Your task to perform on an android device: turn off smart reply in the gmail app Image 0: 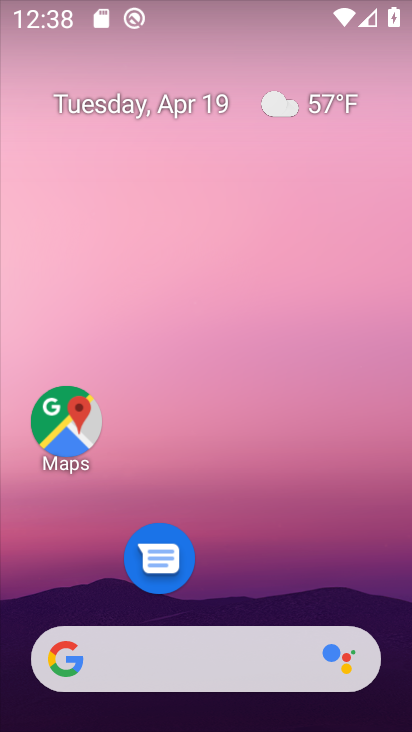
Step 0: drag from (227, 557) to (167, 91)
Your task to perform on an android device: turn off smart reply in the gmail app Image 1: 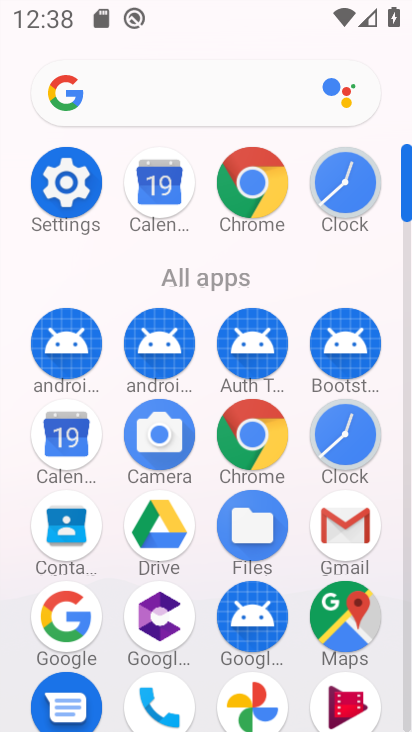
Step 1: click (358, 528)
Your task to perform on an android device: turn off smart reply in the gmail app Image 2: 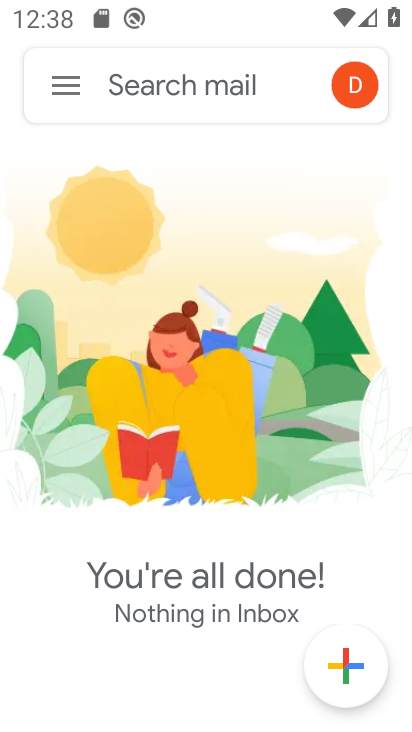
Step 2: click (62, 92)
Your task to perform on an android device: turn off smart reply in the gmail app Image 3: 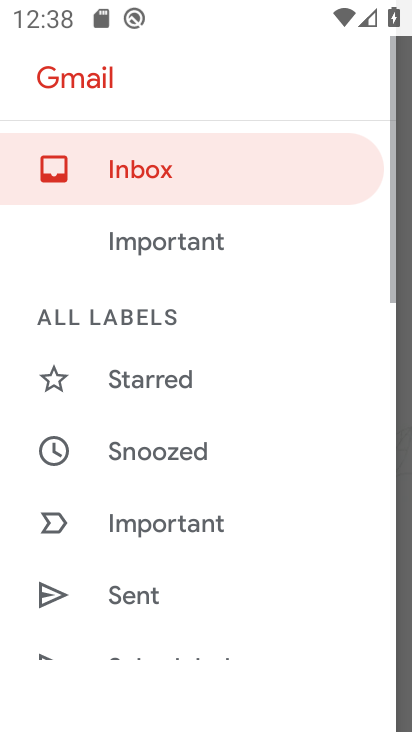
Step 3: drag from (167, 639) to (139, 94)
Your task to perform on an android device: turn off smart reply in the gmail app Image 4: 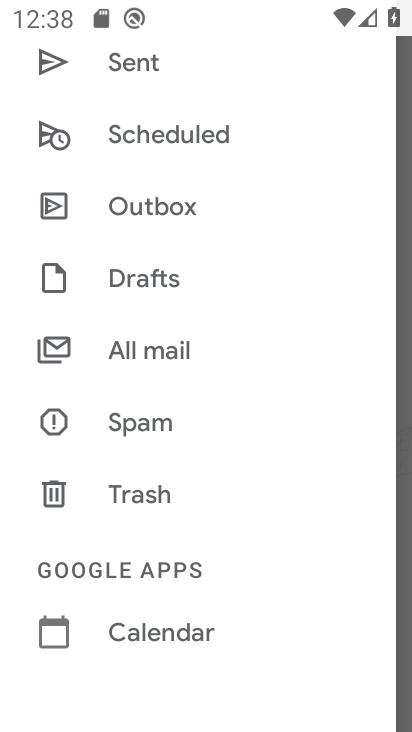
Step 4: drag from (149, 569) to (143, 336)
Your task to perform on an android device: turn off smart reply in the gmail app Image 5: 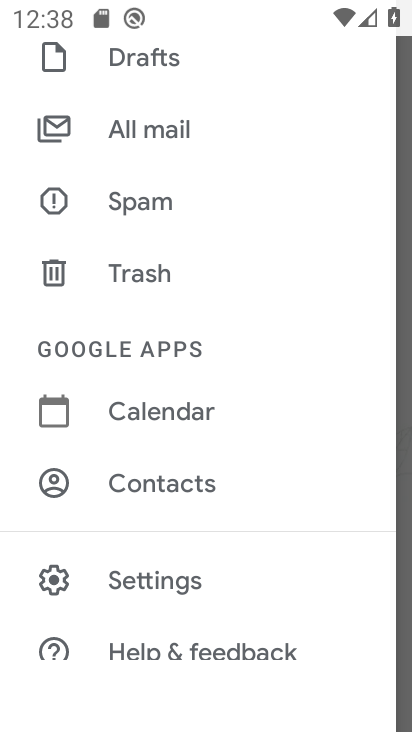
Step 5: click (162, 590)
Your task to perform on an android device: turn off smart reply in the gmail app Image 6: 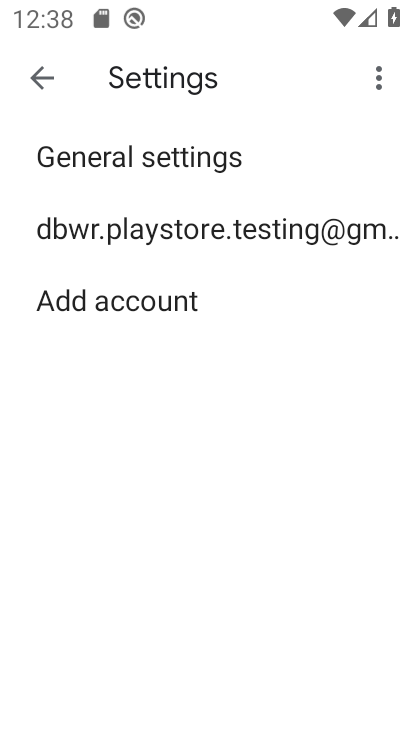
Step 6: click (176, 224)
Your task to perform on an android device: turn off smart reply in the gmail app Image 7: 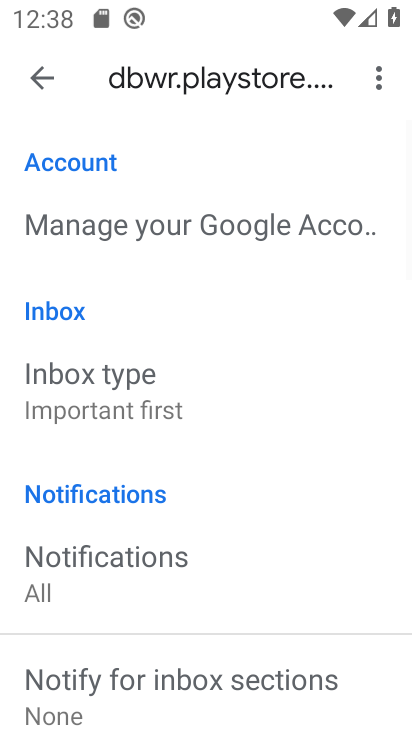
Step 7: drag from (132, 661) to (158, 97)
Your task to perform on an android device: turn off smart reply in the gmail app Image 8: 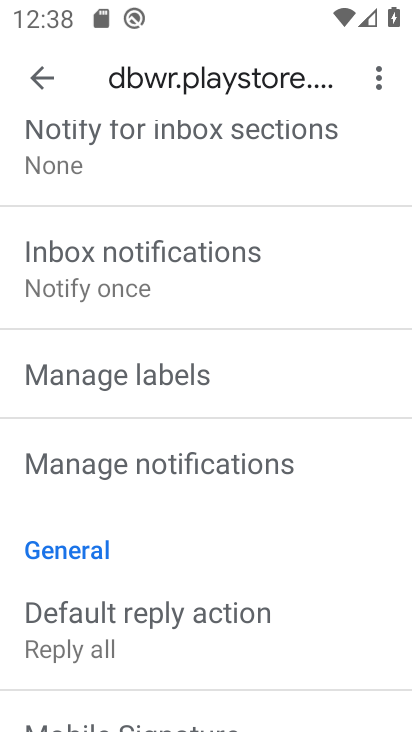
Step 8: drag from (160, 628) to (127, 285)
Your task to perform on an android device: turn off smart reply in the gmail app Image 9: 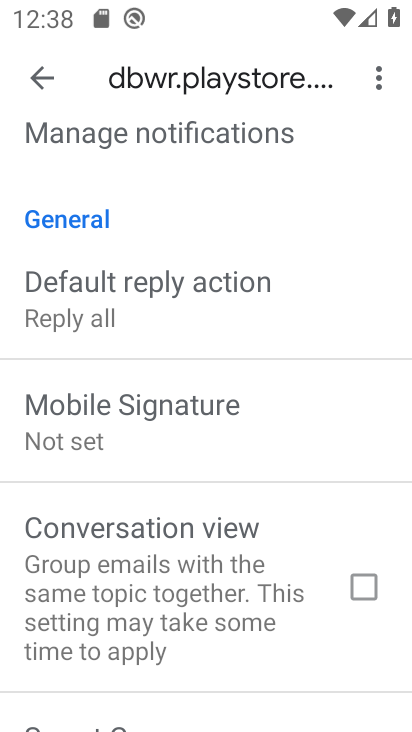
Step 9: drag from (162, 643) to (194, 206)
Your task to perform on an android device: turn off smart reply in the gmail app Image 10: 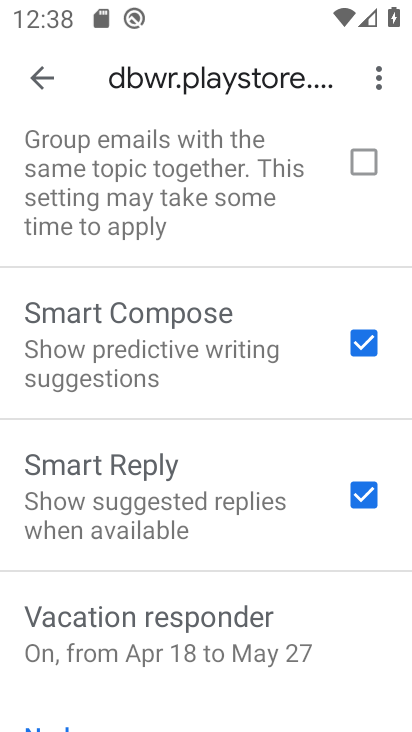
Step 10: click (366, 488)
Your task to perform on an android device: turn off smart reply in the gmail app Image 11: 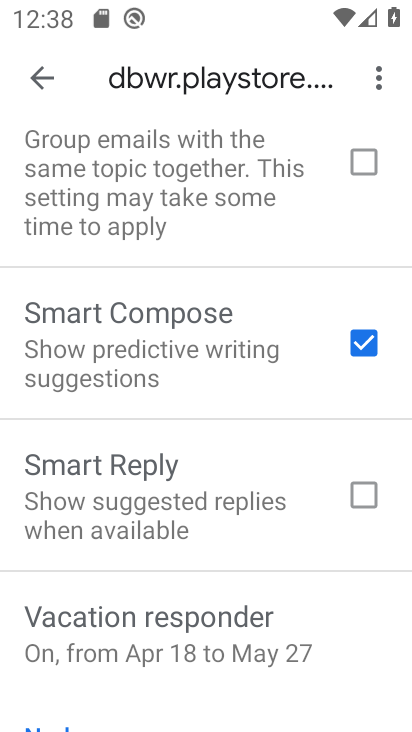
Step 11: task complete